Your task to perform on an android device: open app "Indeed Job Search" (install if not already installed) and go to login screen Image 0: 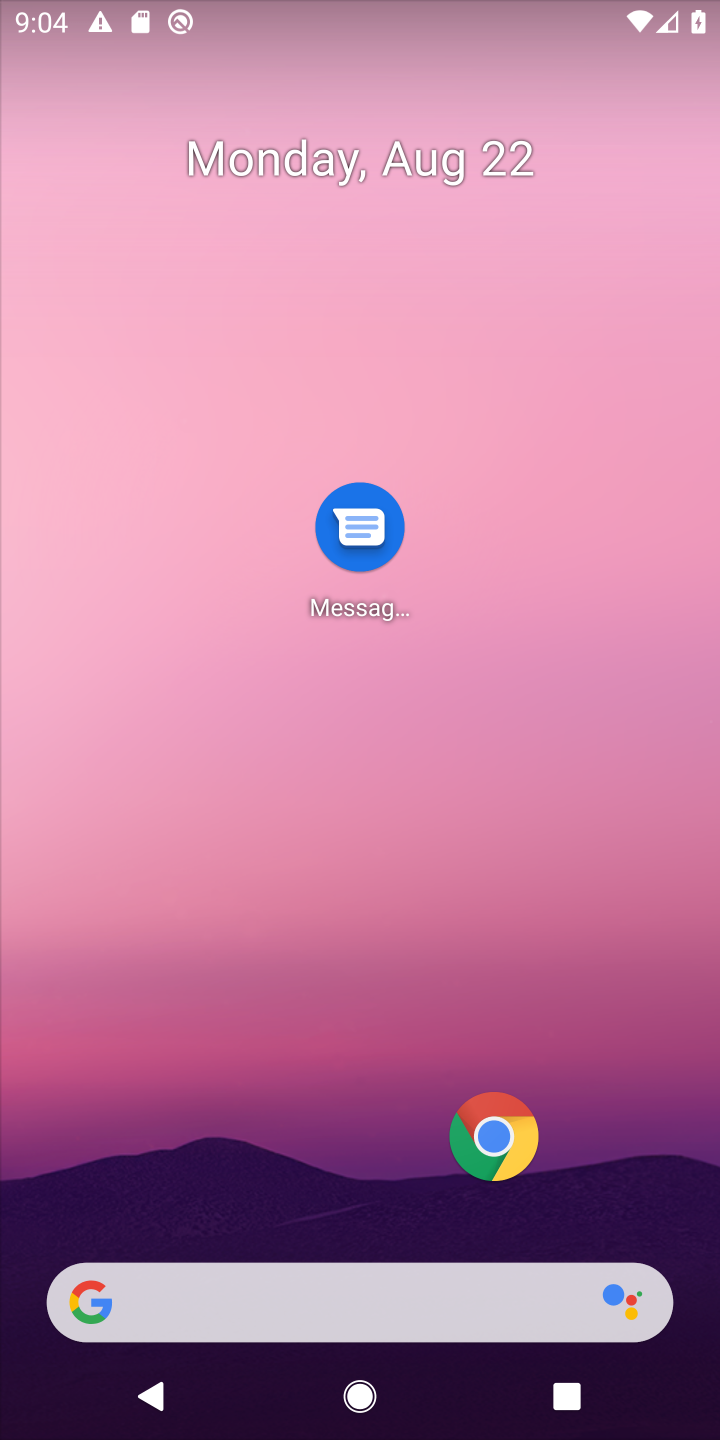
Step 0: drag from (323, 1238) to (329, 438)
Your task to perform on an android device: open app "Indeed Job Search" (install if not already installed) and go to login screen Image 1: 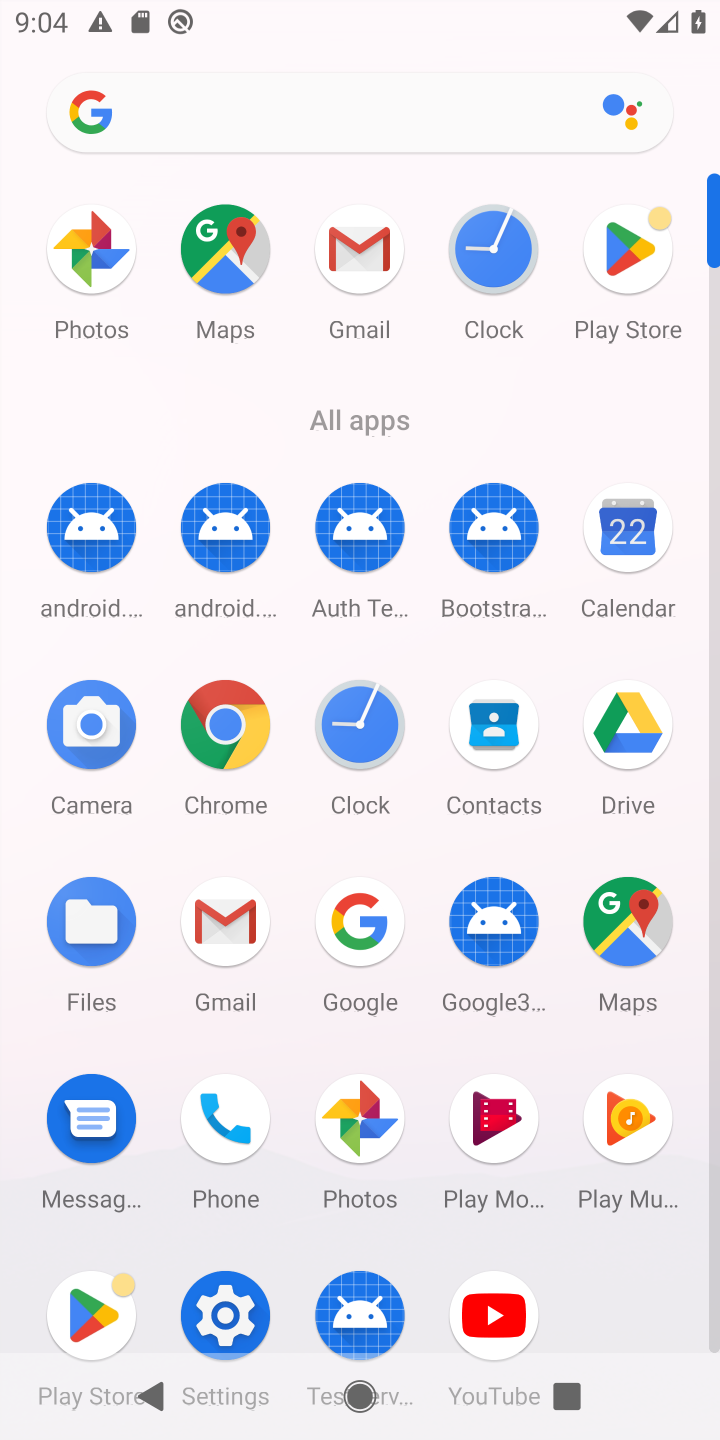
Step 1: click (645, 267)
Your task to perform on an android device: open app "Indeed Job Search" (install if not already installed) and go to login screen Image 2: 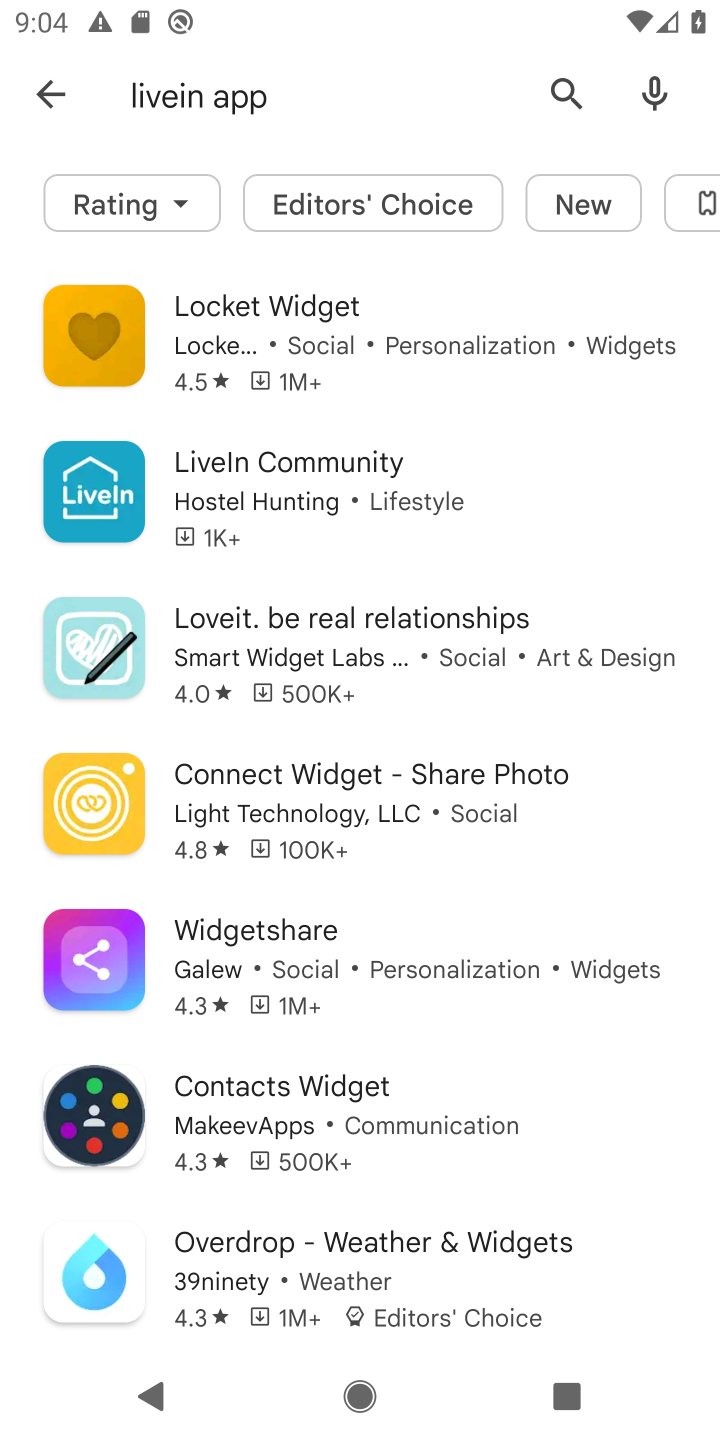
Step 2: click (72, 82)
Your task to perform on an android device: open app "Indeed Job Search" (install if not already installed) and go to login screen Image 3: 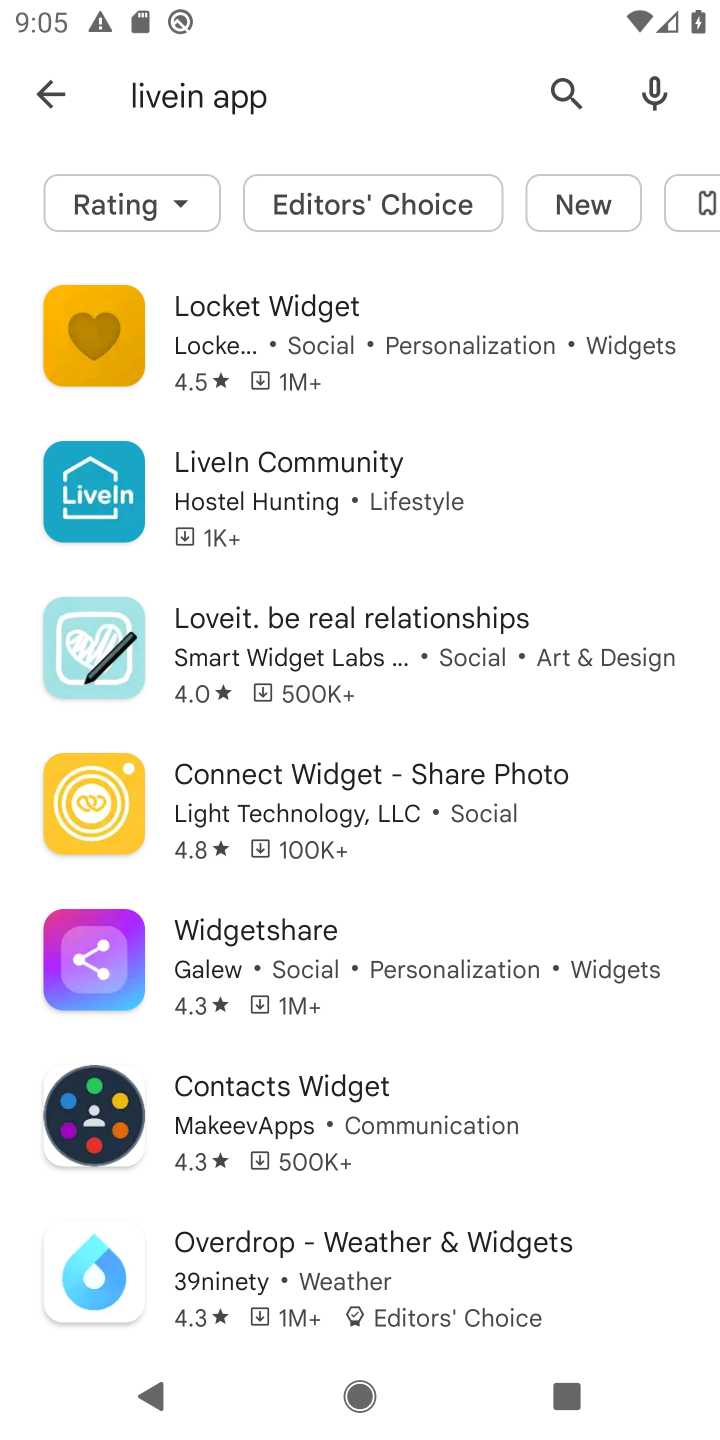
Step 3: click (72, 82)
Your task to perform on an android device: open app "Indeed Job Search" (install if not already installed) and go to login screen Image 4: 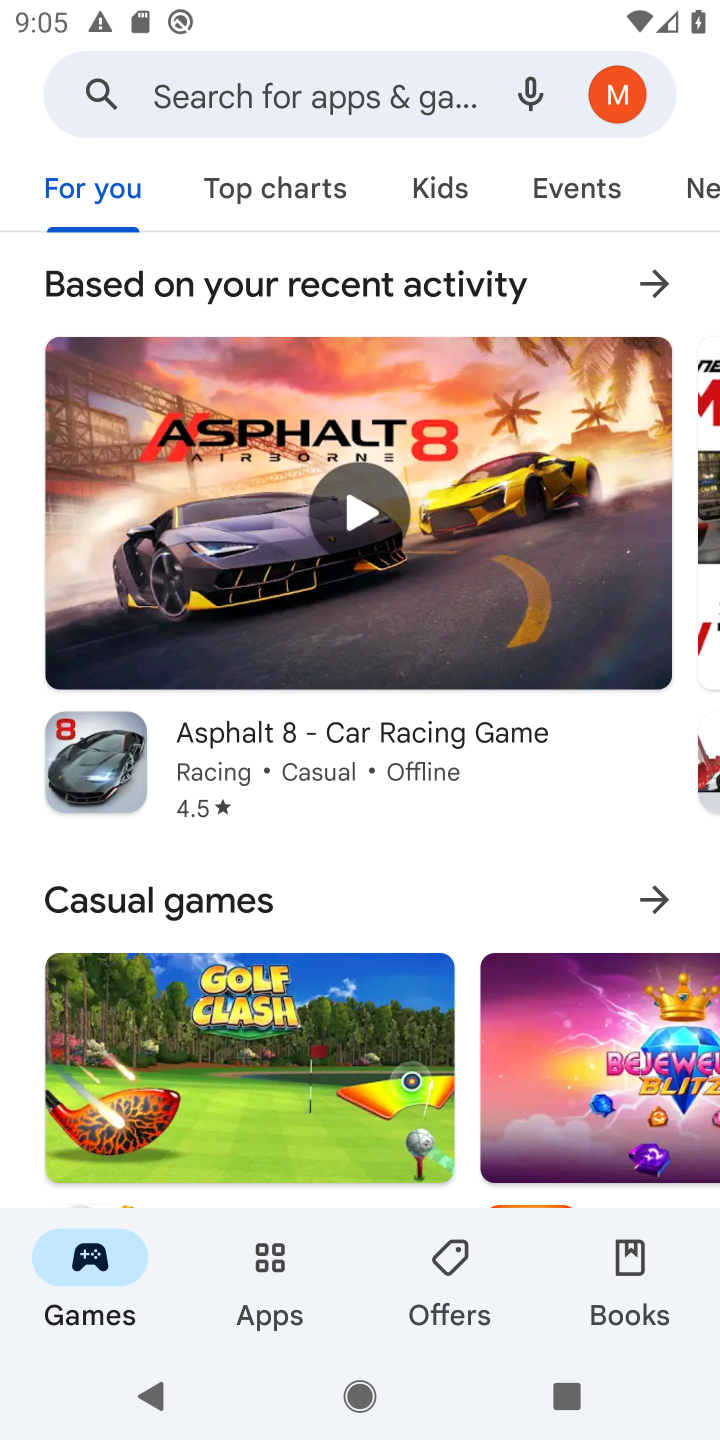
Step 4: click (307, 84)
Your task to perform on an android device: open app "Indeed Job Search" (install if not already installed) and go to login screen Image 5: 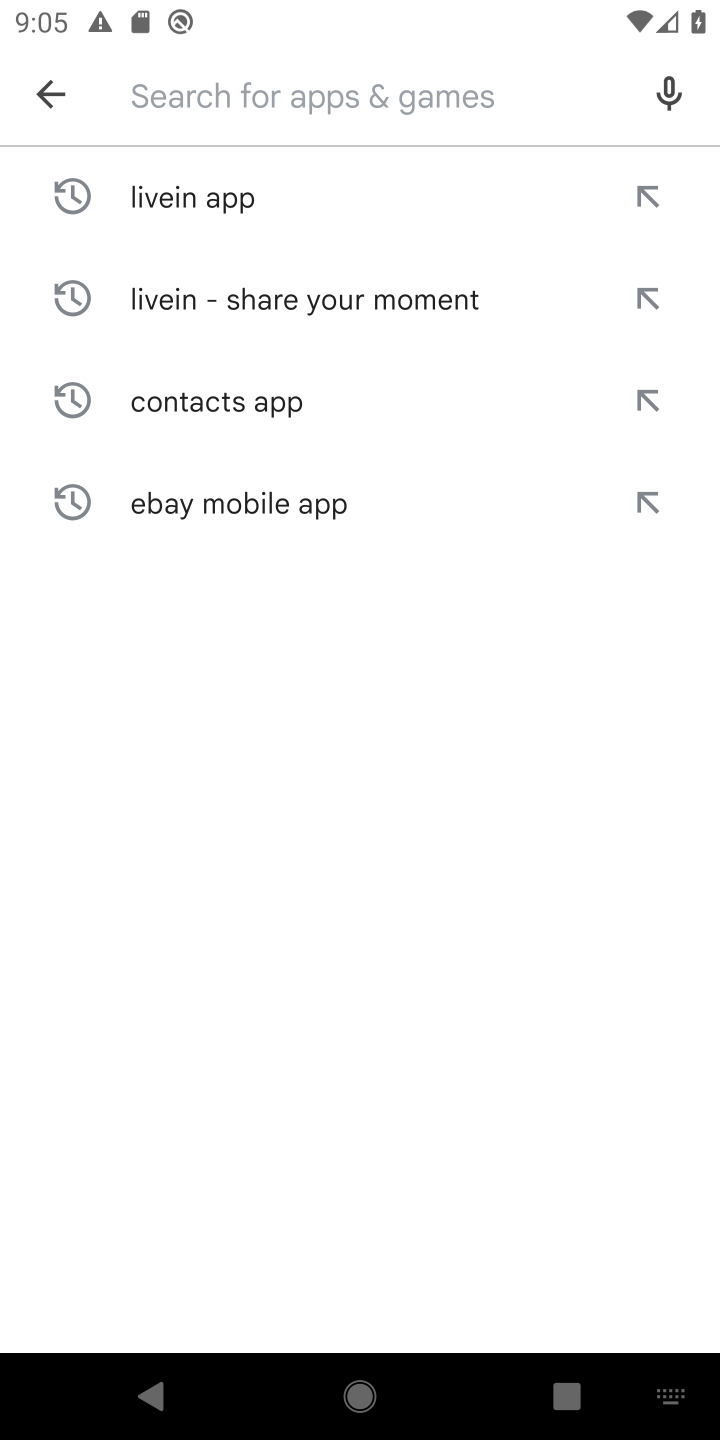
Step 5: type "Indeed Job Search "
Your task to perform on an android device: open app "Indeed Job Search" (install if not already installed) and go to login screen Image 6: 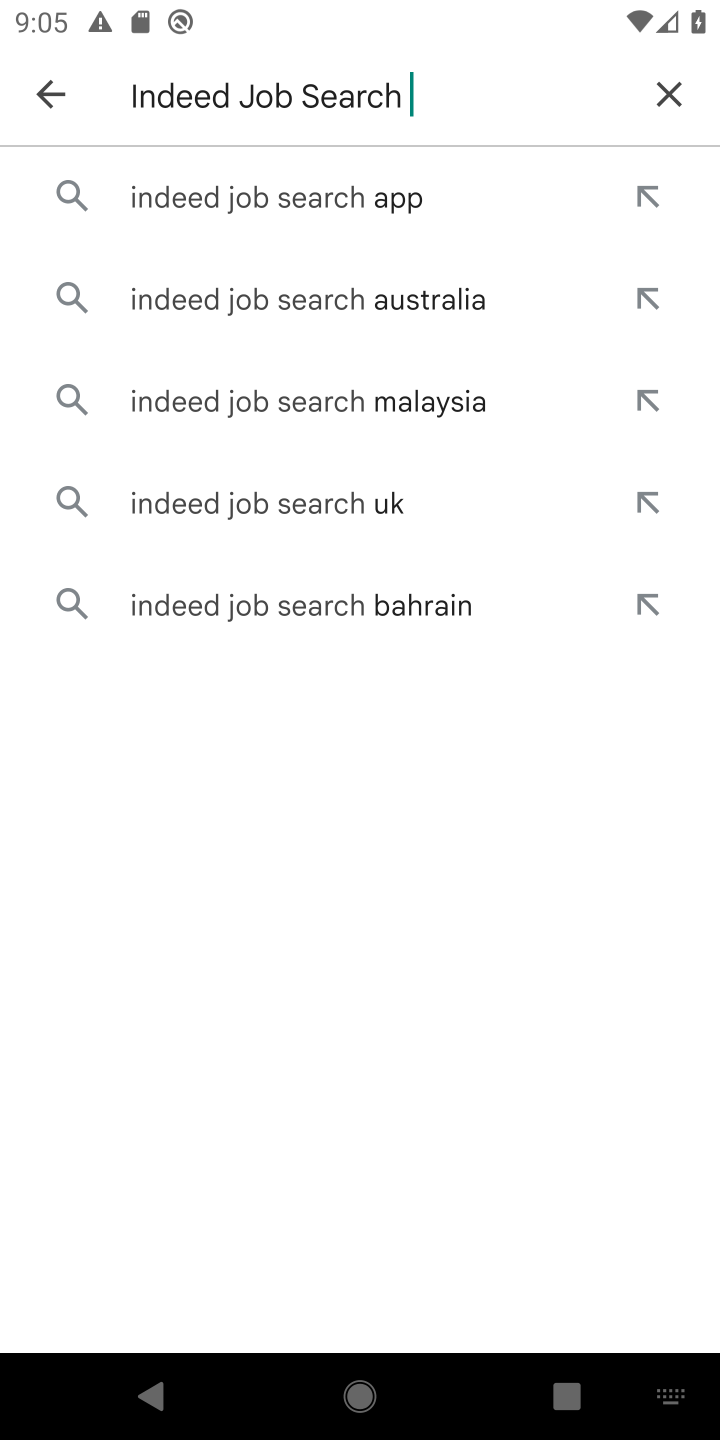
Step 6: click (246, 177)
Your task to perform on an android device: open app "Indeed Job Search" (install if not already installed) and go to login screen Image 7: 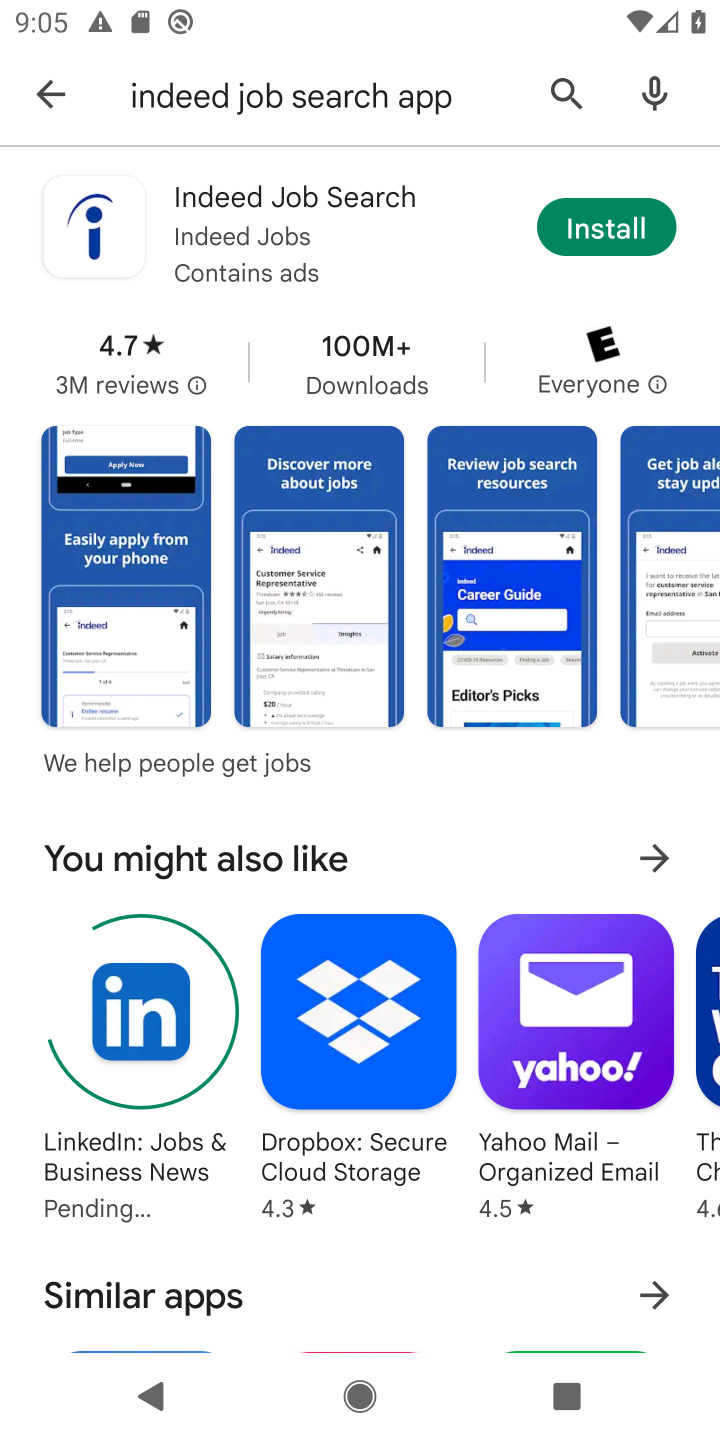
Step 7: click (604, 220)
Your task to perform on an android device: open app "Indeed Job Search" (install if not already installed) and go to login screen Image 8: 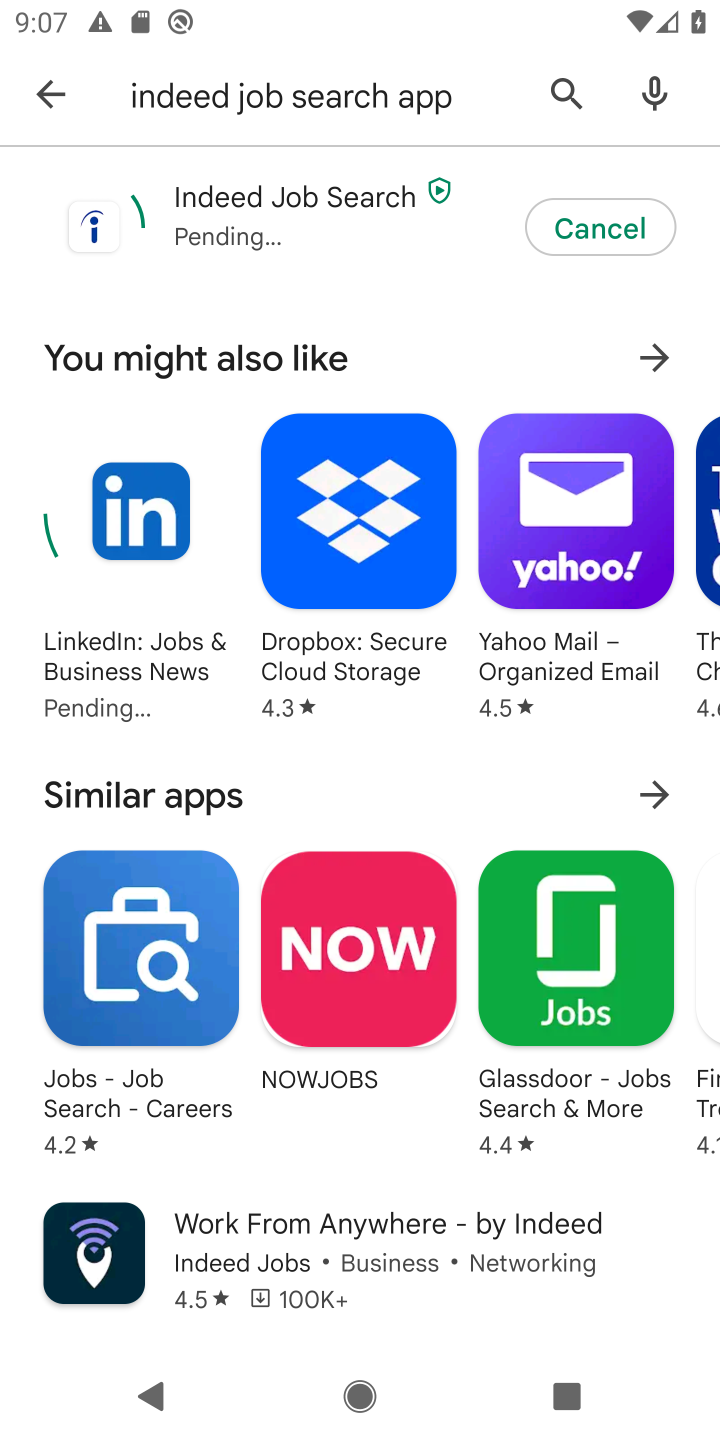
Step 8: task complete